Your task to perform on an android device: What's the weather today? Image 0: 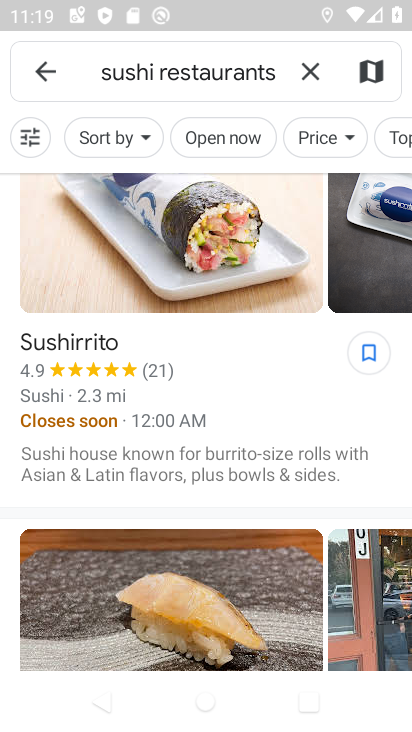
Step 0: press home button
Your task to perform on an android device: What's the weather today? Image 1: 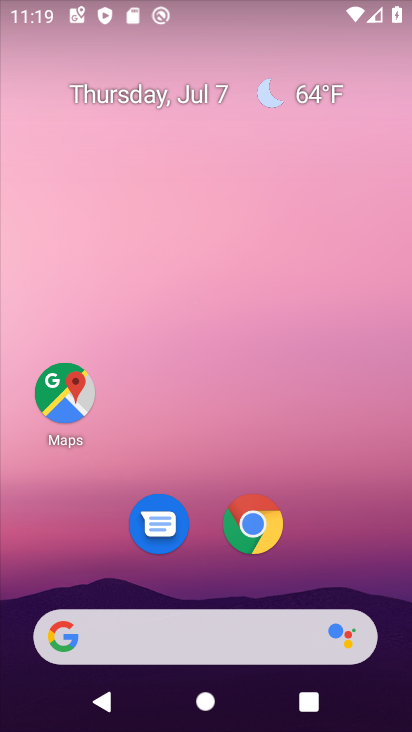
Step 1: click (234, 647)
Your task to perform on an android device: What's the weather today? Image 2: 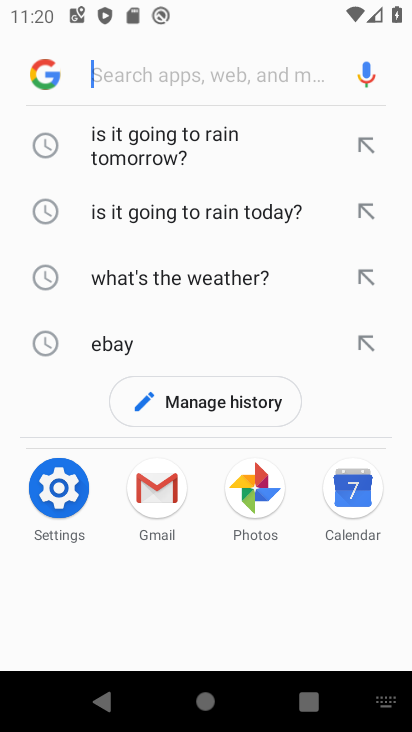
Step 2: click (185, 279)
Your task to perform on an android device: What's the weather today? Image 3: 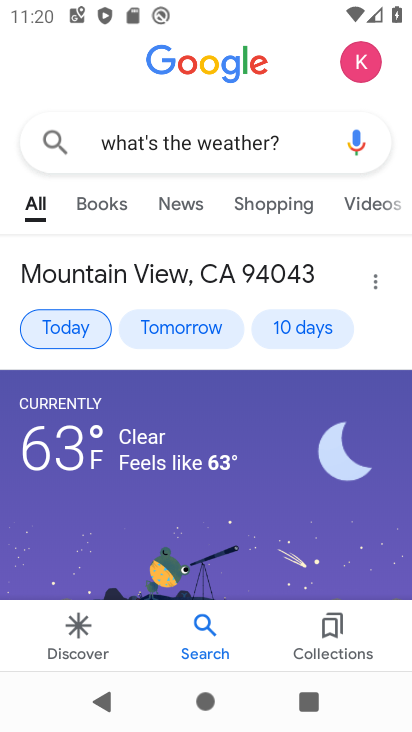
Step 3: click (51, 329)
Your task to perform on an android device: What's the weather today? Image 4: 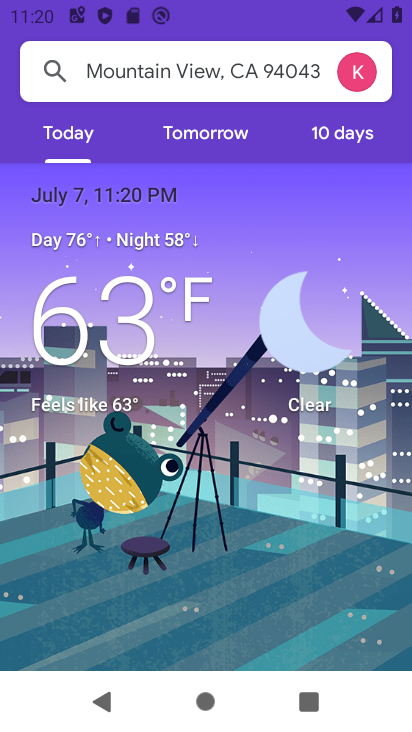
Step 4: task complete